Your task to perform on an android device: open the mobile data screen to see how much data has been used Image 0: 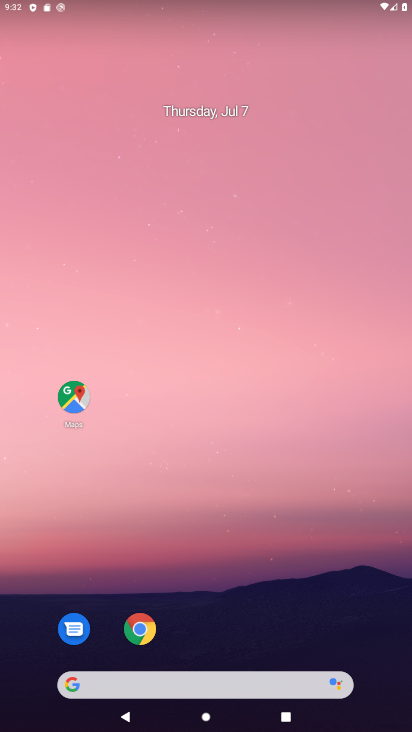
Step 0: drag from (162, 281) to (187, 113)
Your task to perform on an android device: open the mobile data screen to see how much data has been used Image 1: 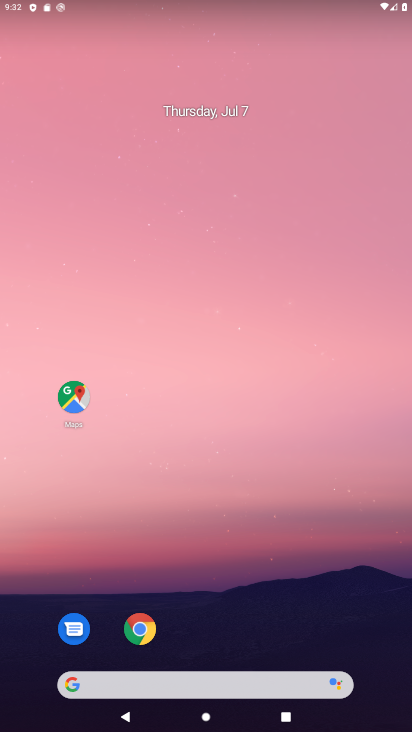
Step 1: click (270, 41)
Your task to perform on an android device: open the mobile data screen to see how much data has been used Image 2: 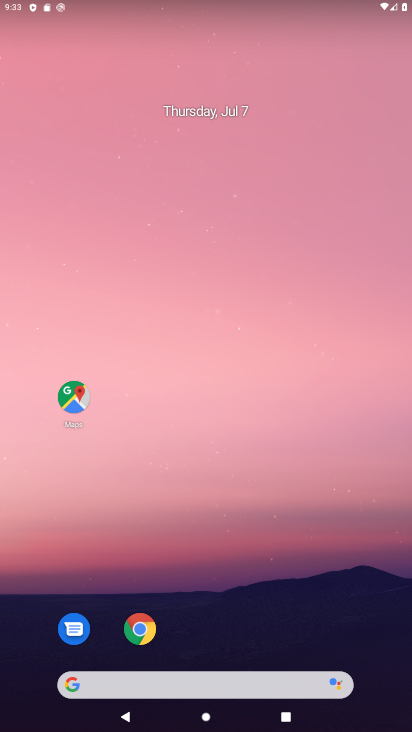
Step 2: drag from (36, 697) to (288, 30)
Your task to perform on an android device: open the mobile data screen to see how much data has been used Image 3: 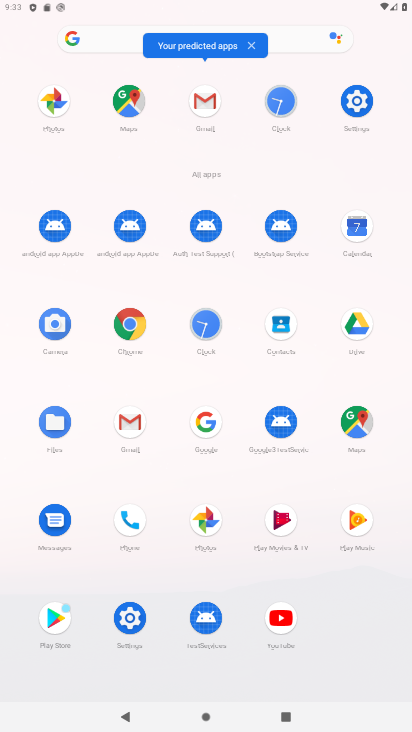
Step 3: click (127, 613)
Your task to perform on an android device: open the mobile data screen to see how much data has been used Image 4: 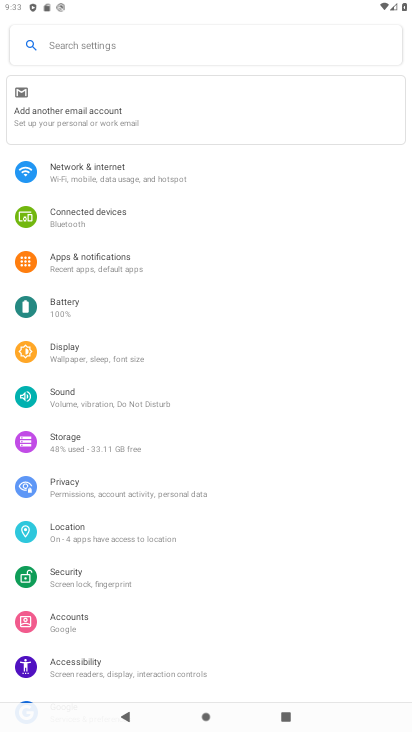
Step 4: click (112, 183)
Your task to perform on an android device: open the mobile data screen to see how much data has been used Image 5: 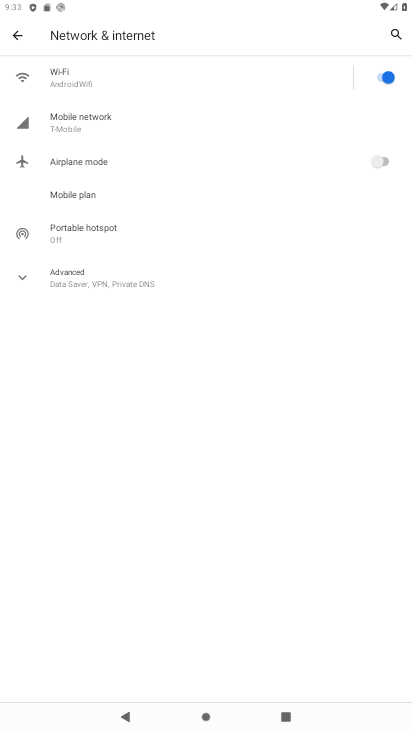
Step 5: click (76, 117)
Your task to perform on an android device: open the mobile data screen to see how much data has been used Image 6: 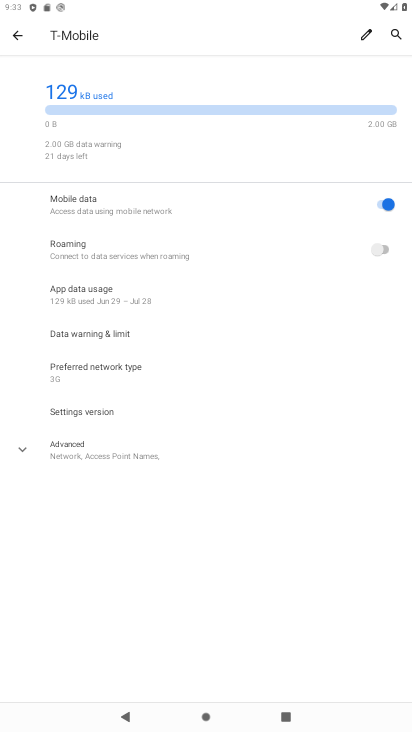
Step 6: task complete